Your task to perform on an android device: open a new tab in the chrome app Image 0: 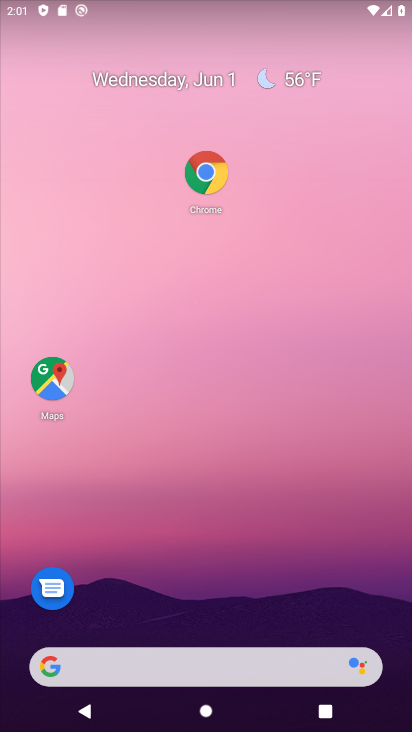
Step 0: drag from (232, 517) to (288, 142)
Your task to perform on an android device: open a new tab in the chrome app Image 1: 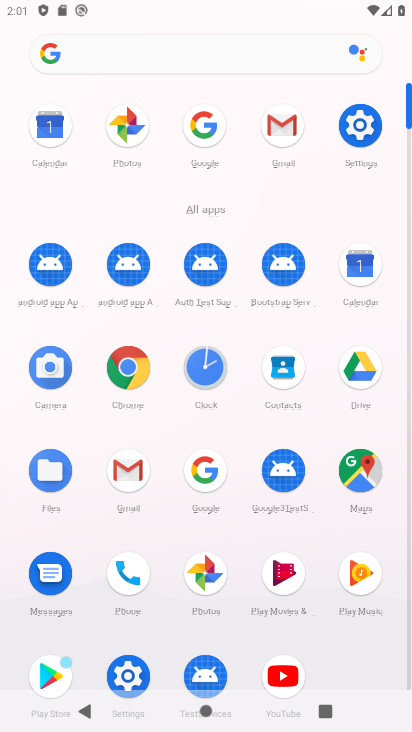
Step 1: click (133, 367)
Your task to perform on an android device: open a new tab in the chrome app Image 2: 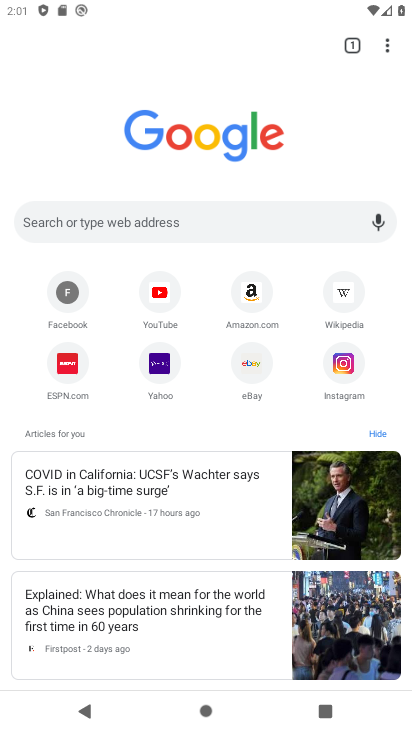
Step 2: click (352, 48)
Your task to perform on an android device: open a new tab in the chrome app Image 3: 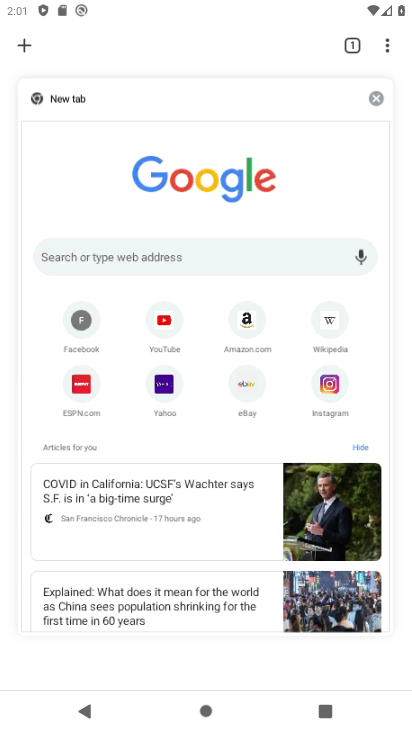
Step 3: click (24, 55)
Your task to perform on an android device: open a new tab in the chrome app Image 4: 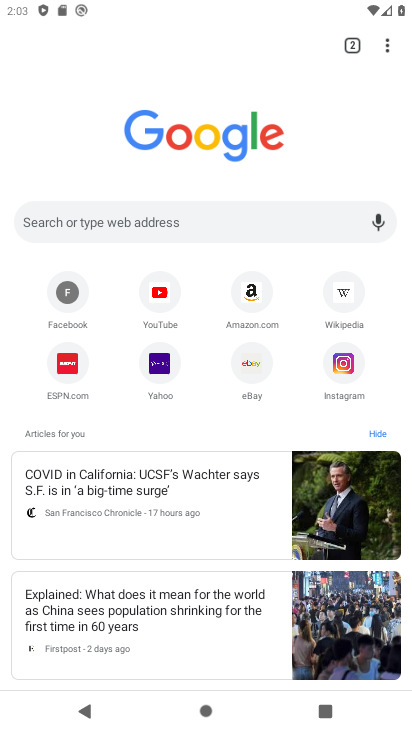
Step 4: task complete